Your task to perform on an android device: clear history in the chrome app Image 0: 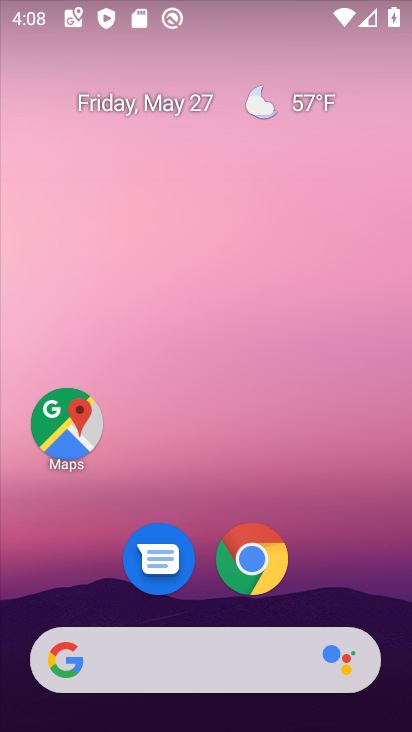
Step 0: click (269, 577)
Your task to perform on an android device: clear history in the chrome app Image 1: 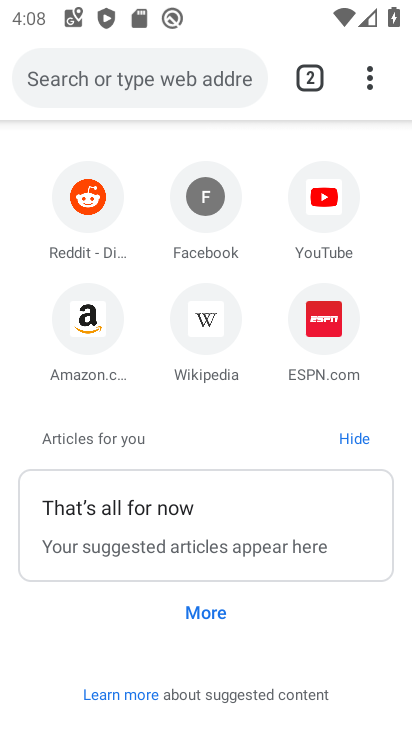
Step 1: click (372, 80)
Your task to perform on an android device: clear history in the chrome app Image 2: 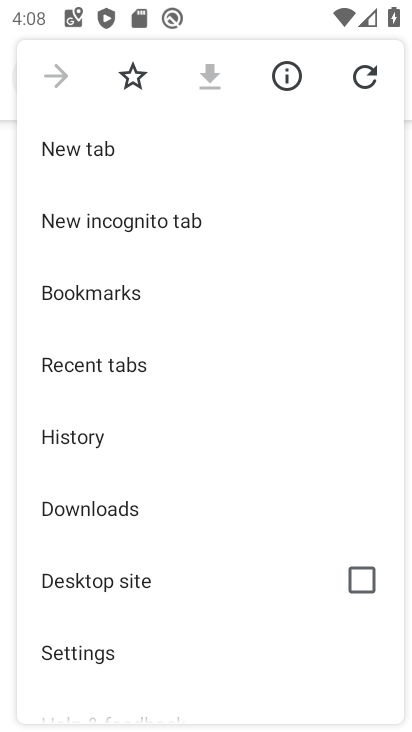
Step 2: click (189, 655)
Your task to perform on an android device: clear history in the chrome app Image 3: 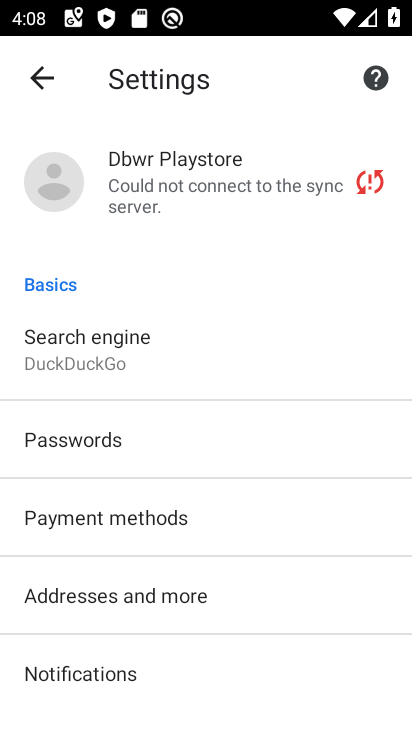
Step 3: click (35, 60)
Your task to perform on an android device: clear history in the chrome app Image 4: 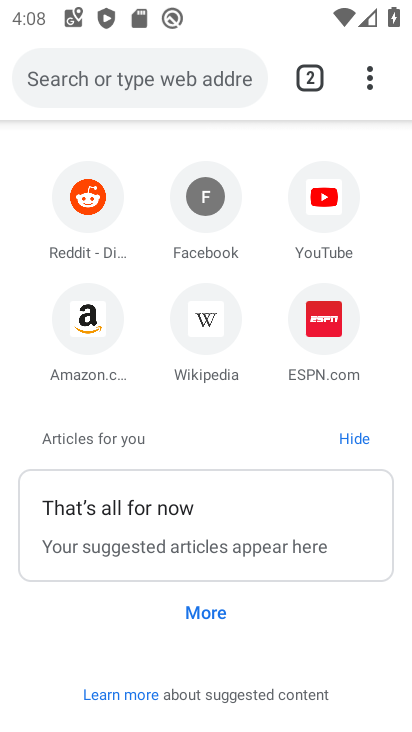
Step 4: click (385, 93)
Your task to perform on an android device: clear history in the chrome app Image 5: 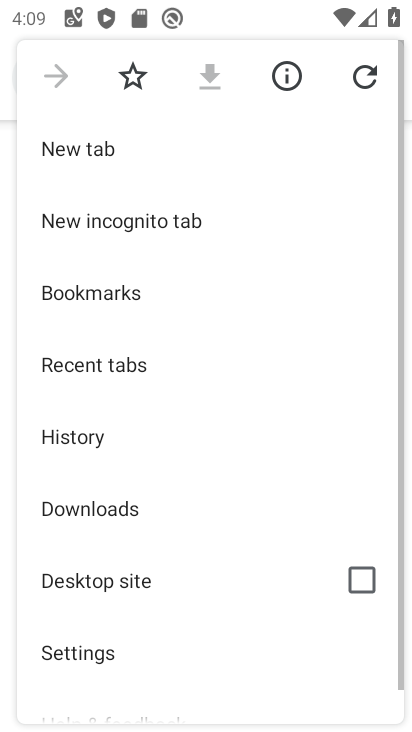
Step 5: click (168, 427)
Your task to perform on an android device: clear history in the chrome app Image 6: 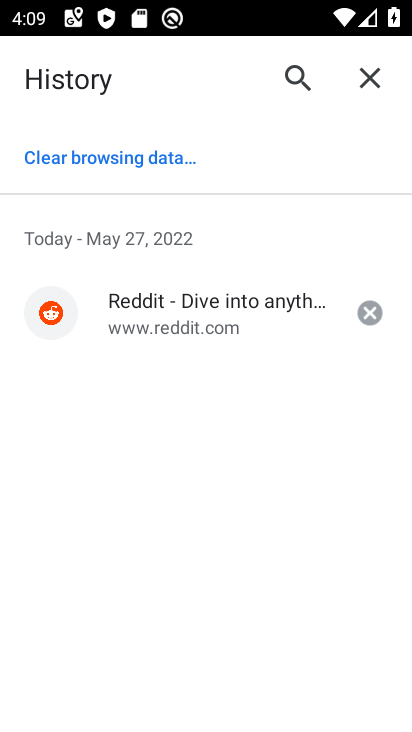
Step 6: click (62, 164)
Your task to perform on an android device: clear history in the chrome app Image 7: 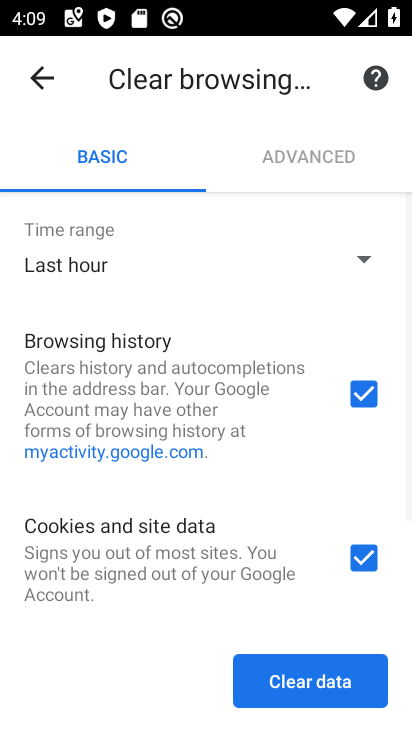
Step 7: click (331, 700)
Your task to perform on an android device: clear history in the chrome app Image 8: 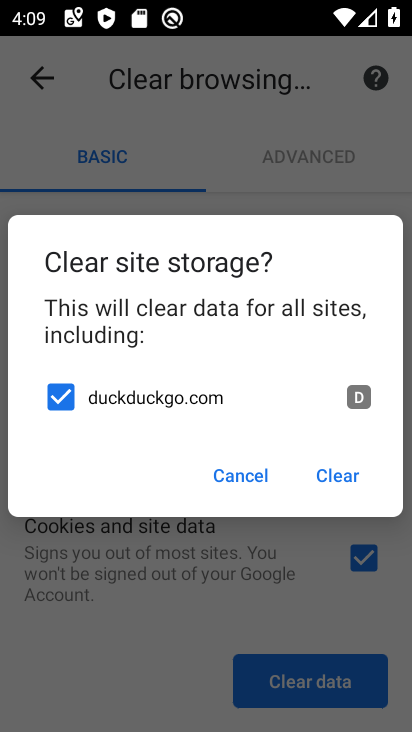
Step 8: click (345, 490)
Your task to perform on an android device: clear history in the chrome app Image 9: 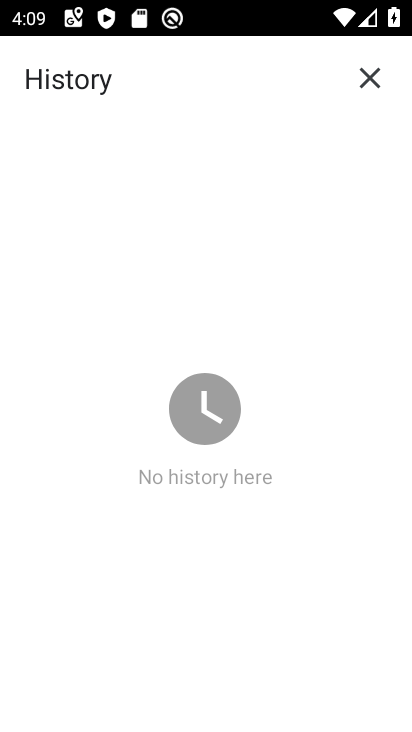
Step 9: task complete